Your task to perform on an android device: delete the emails in spam in the gmail app Image 0: 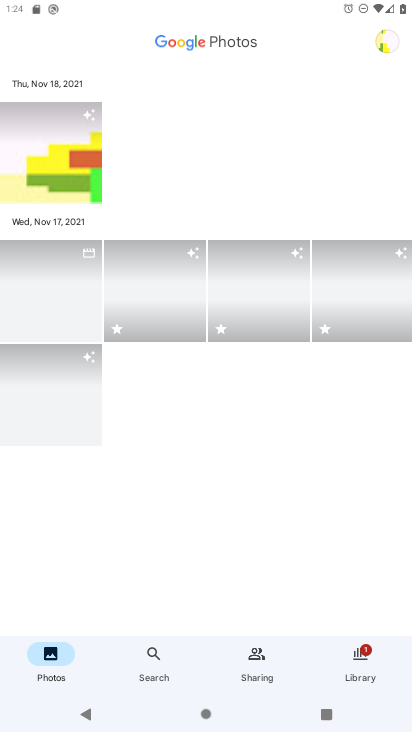
Step 0: press home button
Your task to perform on an android device: delete the emails in spam in the gmail app Image 1: 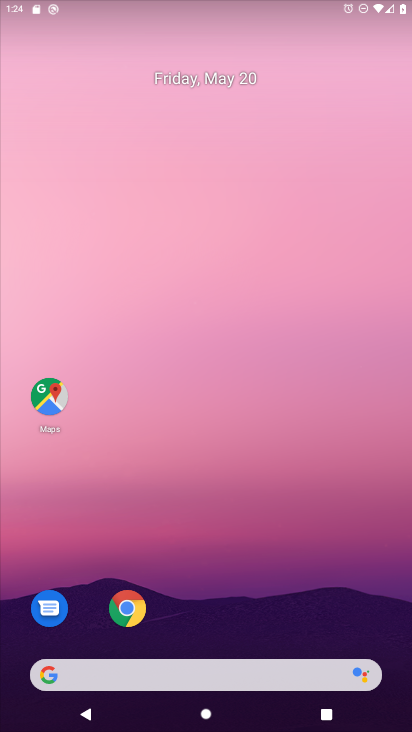
Step 1: drag from (337, 583) to (296, 31)
Your task to perform on an android device: delete the emails in spam in the gmail app Image 2: 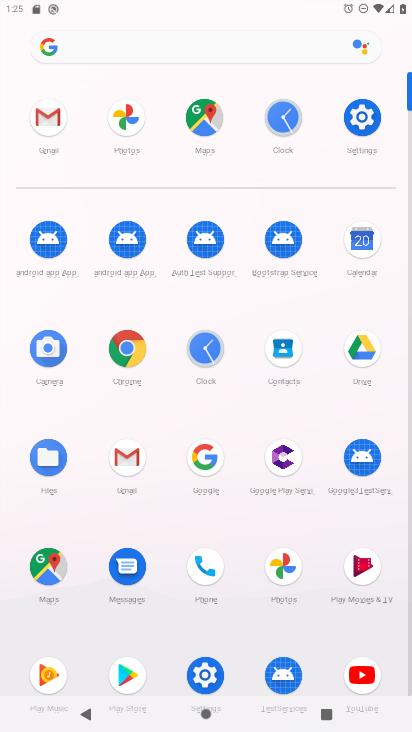
Step 2: click (55, 122)
Your task to perform on an android device: delete the emails in spam in the gmail app Image 3: 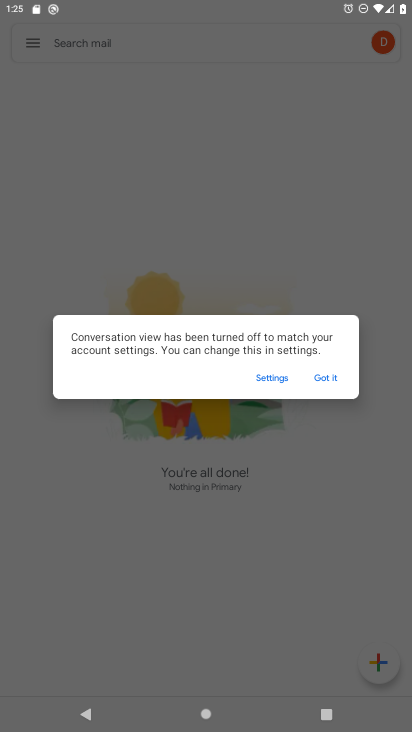
Step 3: click (322, 379)
Your task to perform on an android device: delete the emails in spam in the gmail app Image 4: 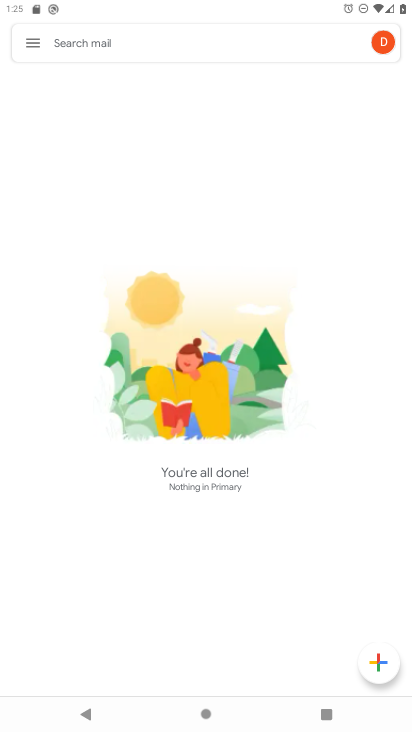
Step 4: click (36, 42)
Your task to perform on an android device: delete the emails in spam in the gmail app Image 5: 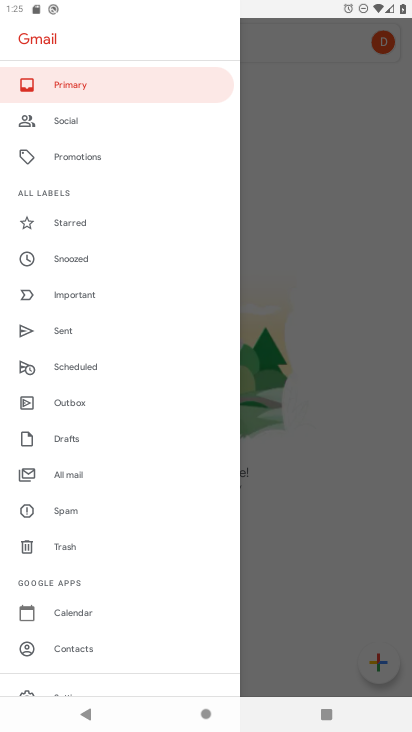
Step 5: task complete